Your task to perform on an android device: Open Yahoo.com Image 0: 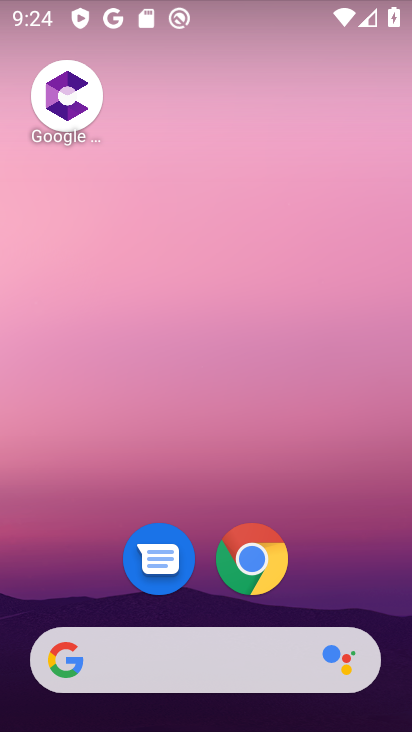
Step 0: click (255, 565)
Your task to perform on an android device: Open Yahoo.com Image 1: 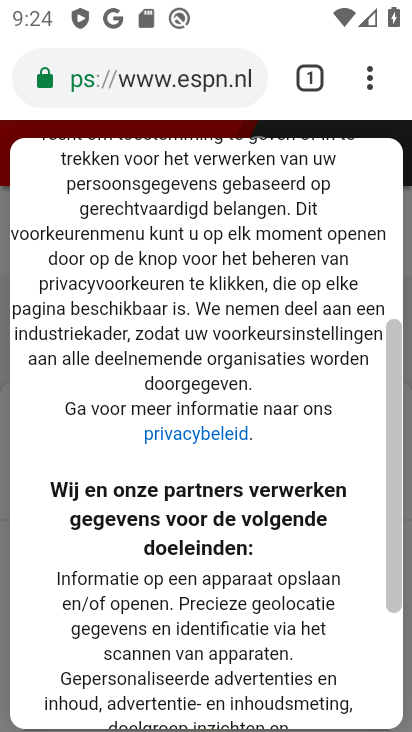
Step 1: click (234, 83)
Your task to perform on an android device: Open Yahoo.com Image 2: 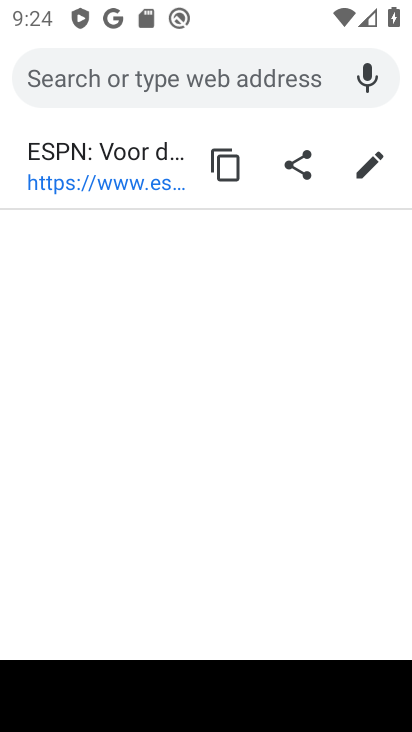
Step 2: type "Yahoo.com"
Your task to perform on an android device: Open Yahoo.com Image 3: 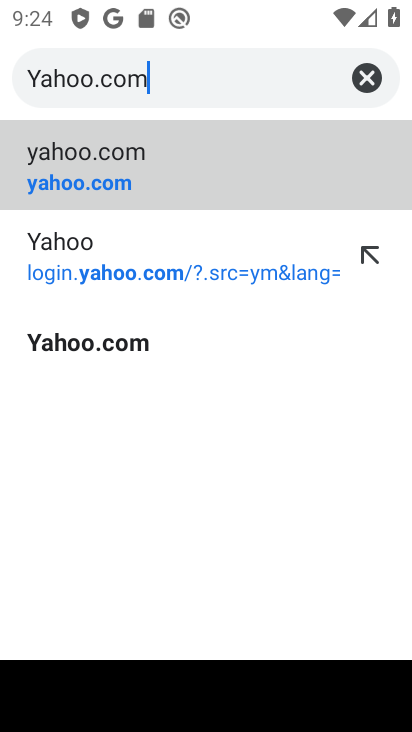
Step 3: click (76, 341)
Your task to perform on an android device: Open Yahoo.com Image 4: 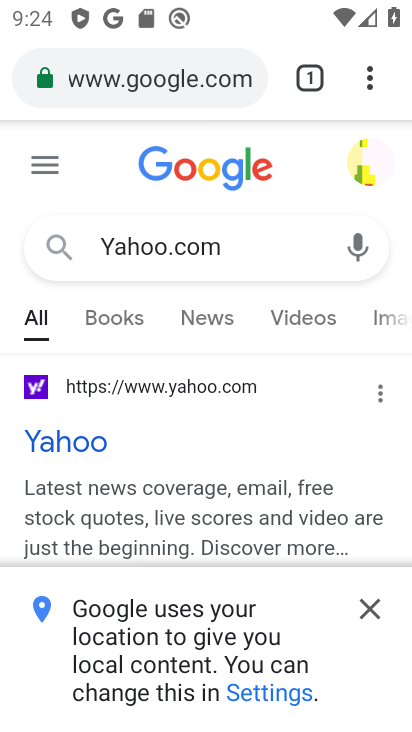
Step 4: click (69, 434)
Your task to perform on an android device: Open Yahoo.com Image 5: 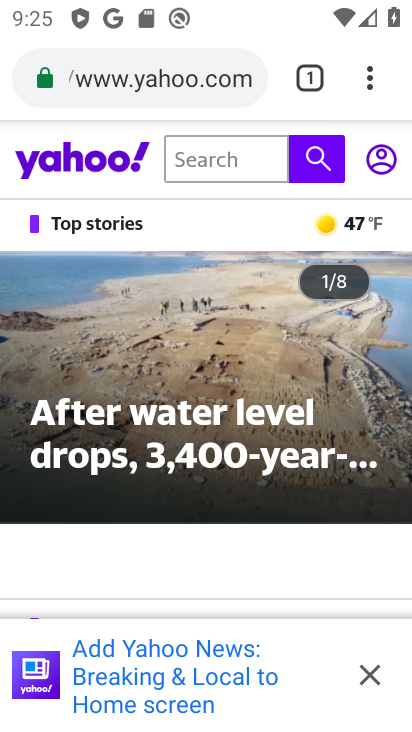
Step 5: task complete